Your task to perform on an android device: Go to Google Image 0: 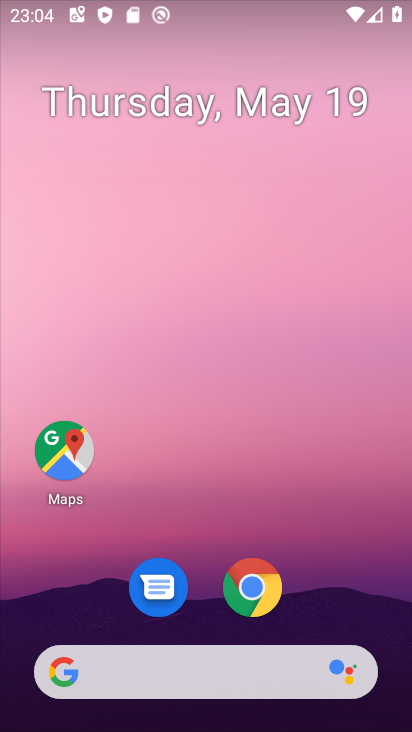
Step 0: press home button
Your task to perform on an android device: Go to Google Image 1: 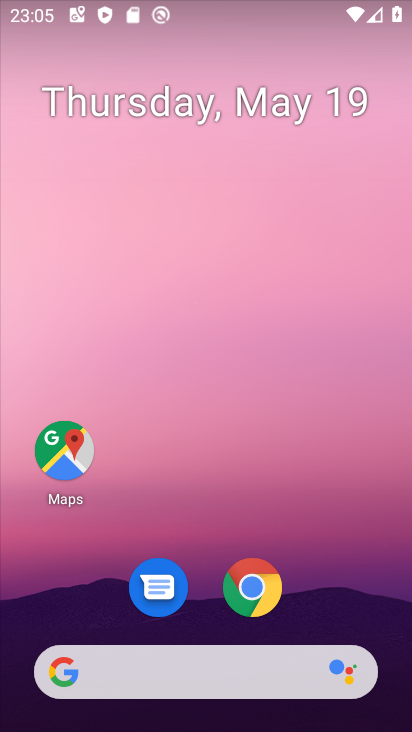
Step 1: drag from (136, 696) to (191, 84)
Your task to perform on an android device: Go to Google Image 2: 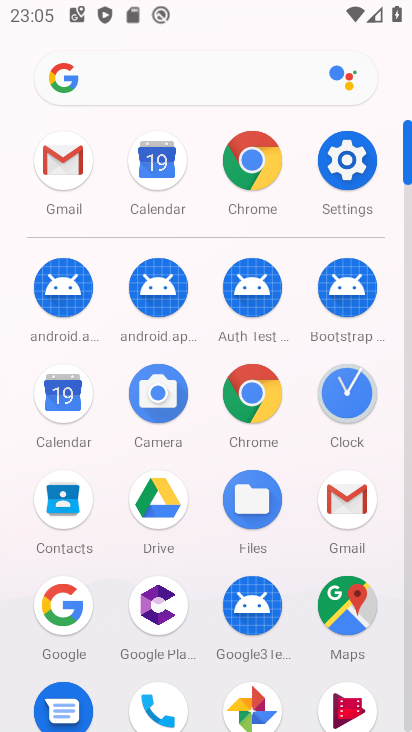
Step 2: click (62, 69)
Your task to perform on an android device: Go to Google Image 3: 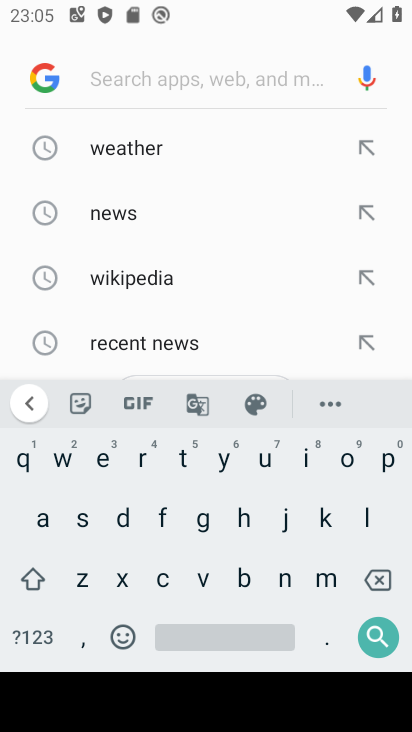
Step 3: click (56, 77)
Your task to perform on an android device: Go to Google Image 4: 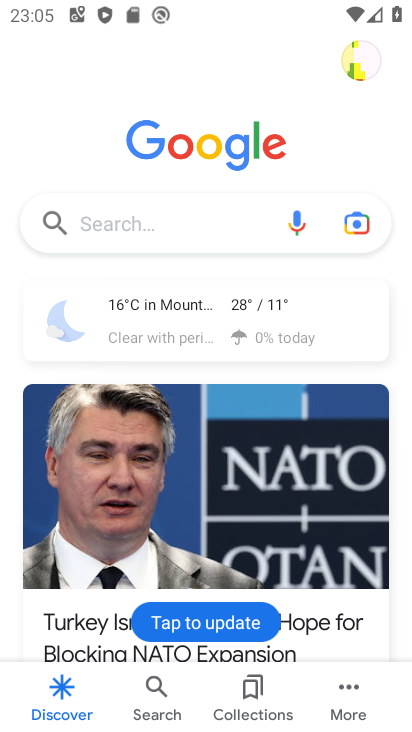
Step 4: task complete